Your task to perform on an android device: check android version Image 0: 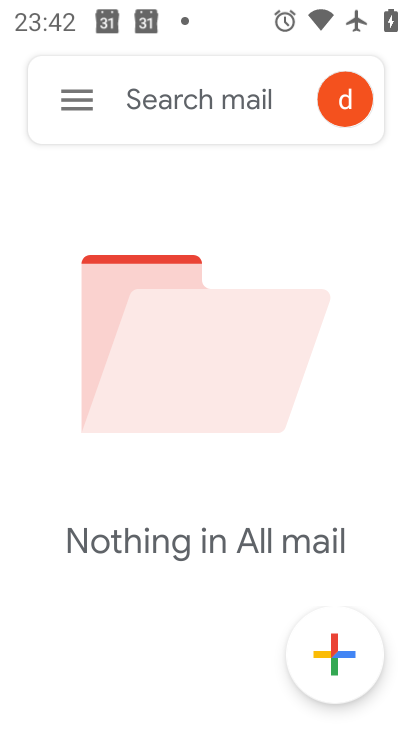
Step 0: press home button
Your task to perform on an android device: check android version Image 1: 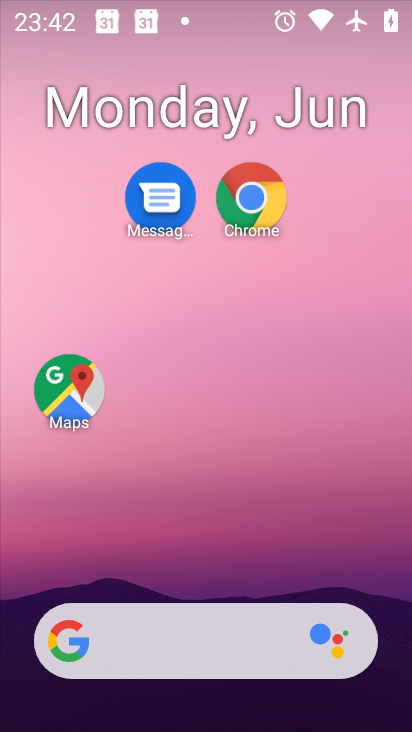
Step 1: drag from (209, 573) to (204, 156)
Your task to perform on an android device: check android version Image 2: 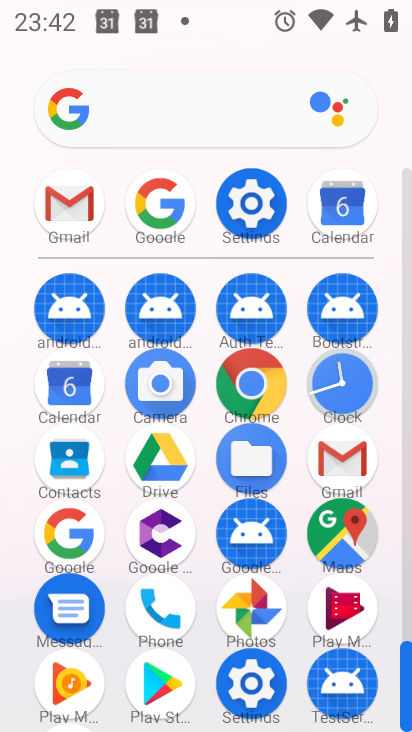
Step 2: click (257, 188)
Your task to perform on an android device: check android version Image 3: 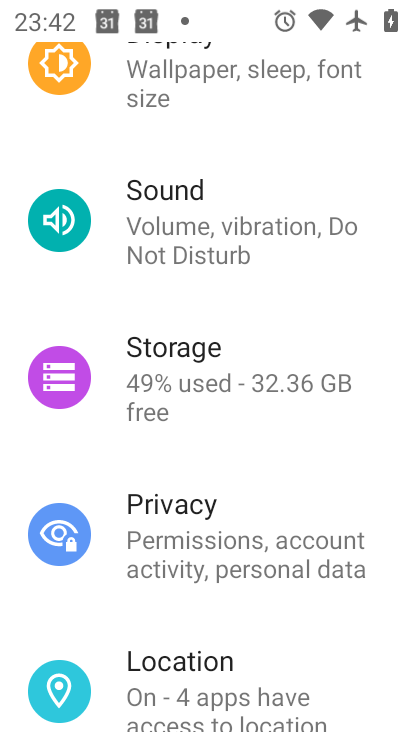
Step 3: drag from (261, 576) to (262, 310)
Your task to perform on an android device: check android version Image 4: 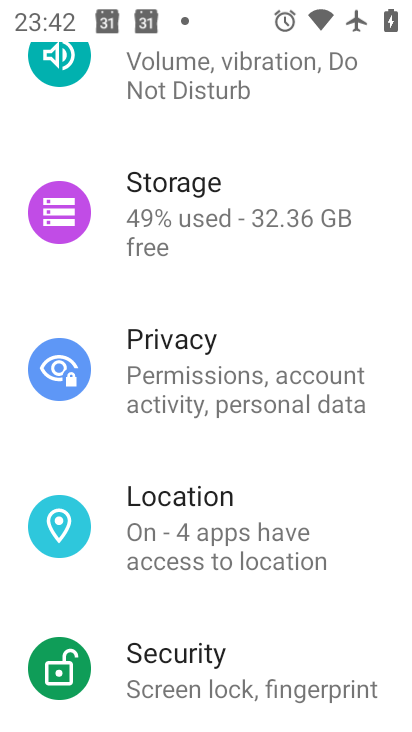
Step 4: drag from (262, 612) to (271, 232)
Your task to perform on an android device: check android version Image 5: 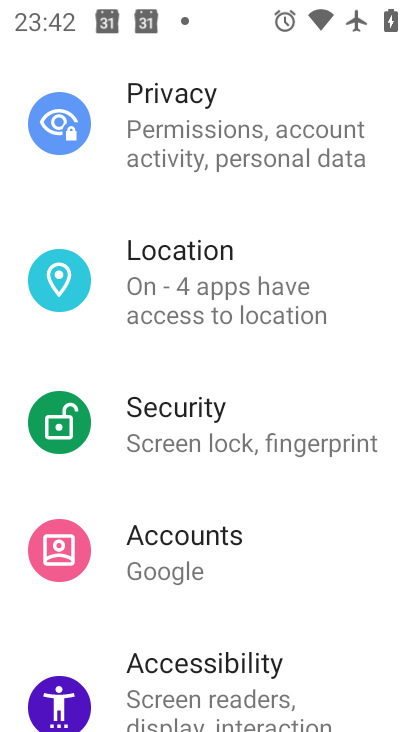
Step 5: drag from (278, 638) to (248, 157)
Your task to perform on an android device: check android version Image 6: 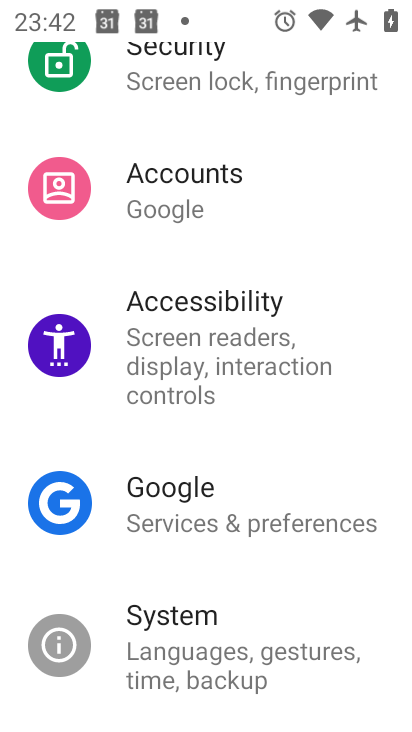
Step 6: click (265, 232)
Your task to perform on an android device: check android version Image 7: 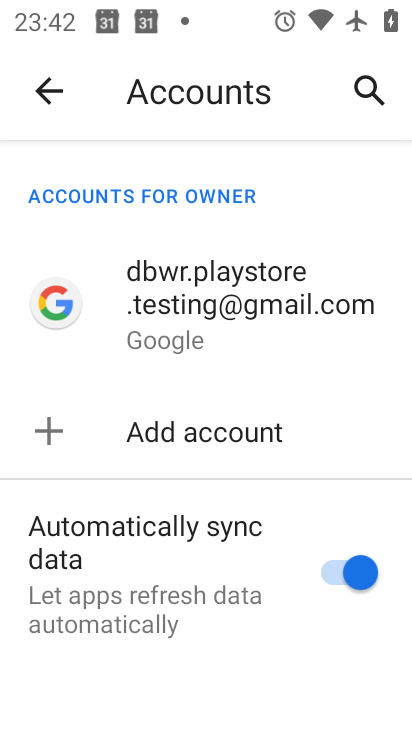
Step 7: drag from (223, 622) to (231, 304)
Your task to perform on an android device: check android version Image 8: 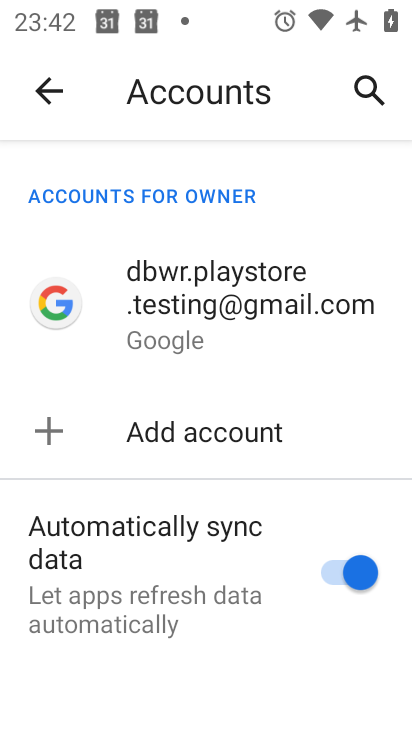
Step 8: click (40, 83)
Your task to perform on an android device: check android version Image 9: 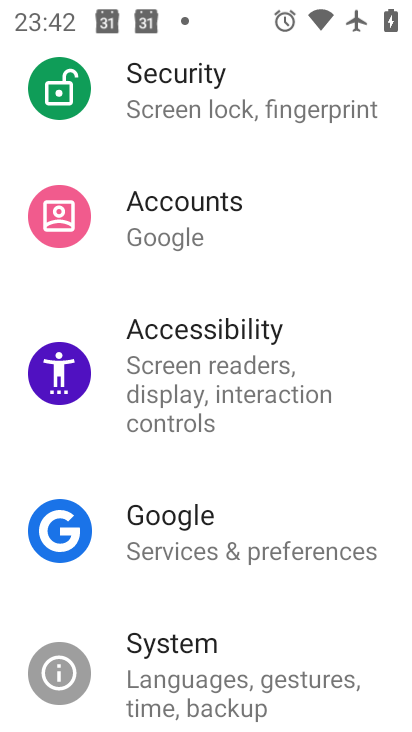
Step 9: drag from (185, 628) to (196, 283)
Your task to perform on an android device: check android version Image 10: 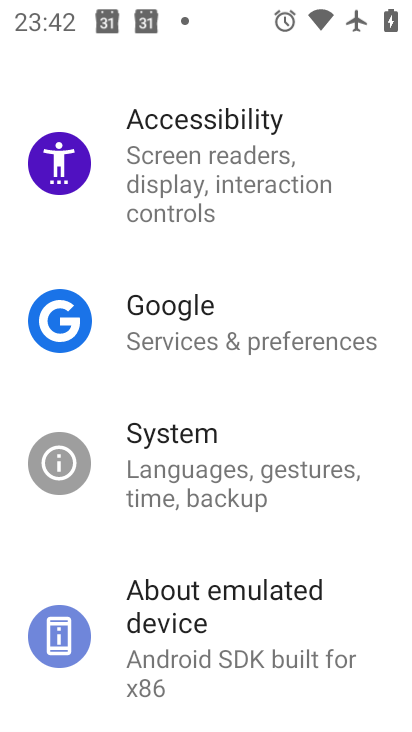
Step 10: drag from (211, 624) to (212, 374)
Your task to perform on an android device: check android version Image 11: 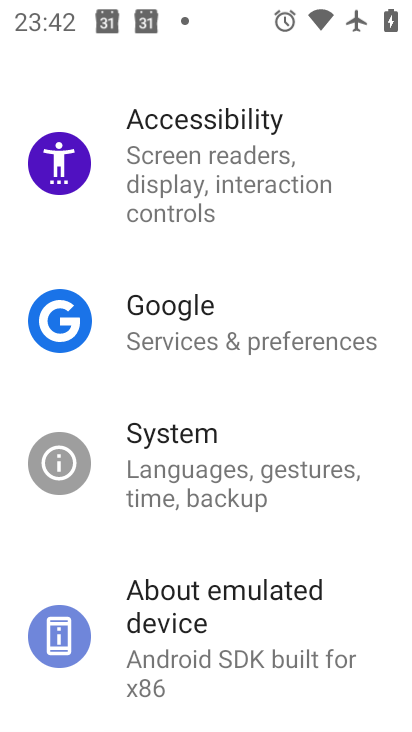
Step 11: click (222, 607)
Your task to perform on an android device: check android version Image 12: 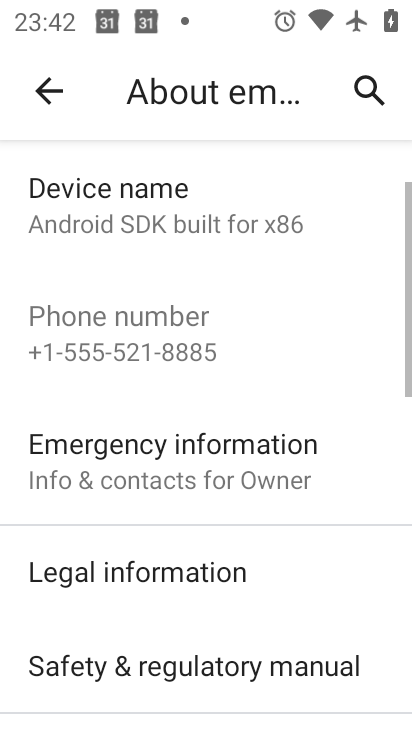
Step 12: drag from (173, 567) to (202, 314)
Your task to perform on an android device: check android version Image 13: 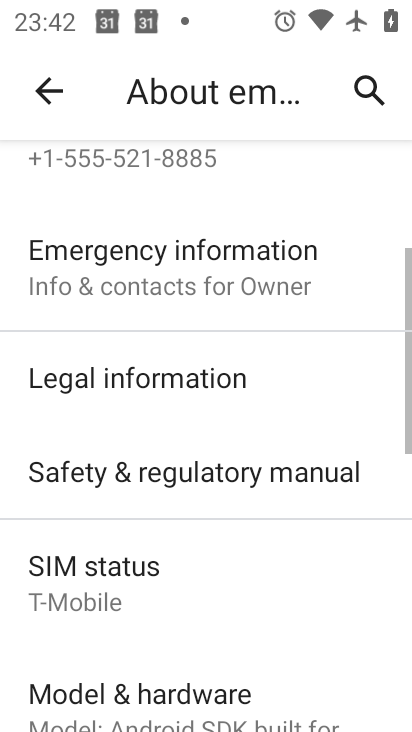
Step 13: drag from (183, 618) to (197, 302)
Your task to perform on an android device: check android version Image 14: 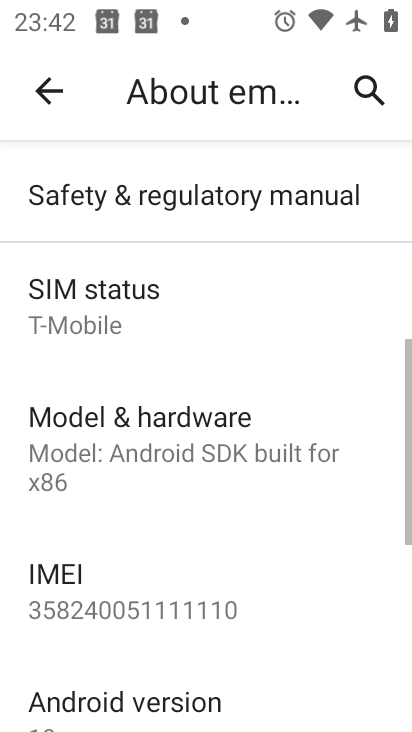
Step 14: drag from (152, 671) to (174, 383)
Your task to perform on an android device: check android version Image 15: 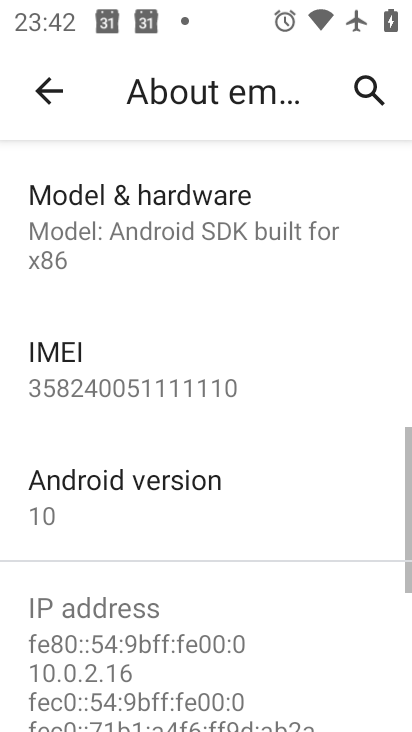
Step 15: click (166, 495)
Your task to perform on an android device: check android version Image 16: 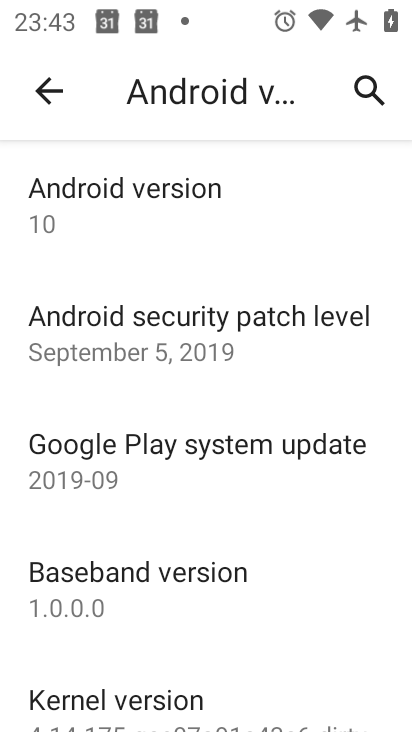
Step 16: click (205, 232)
Your task to perform on an android device: check android version Image 17: 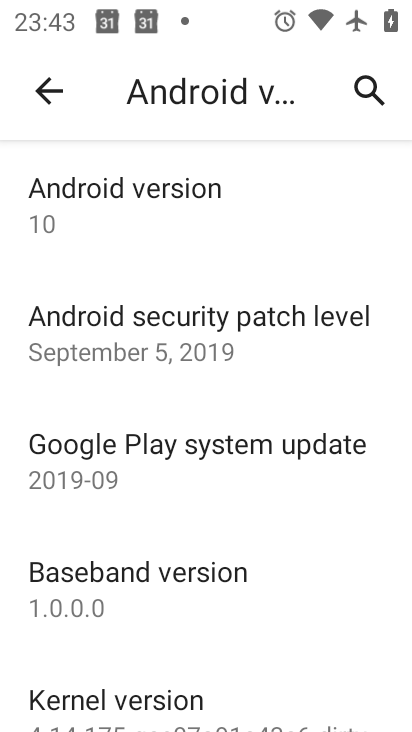
Step 17: click (248, 195)
Your task to perform on an android device: check android version Image 18: 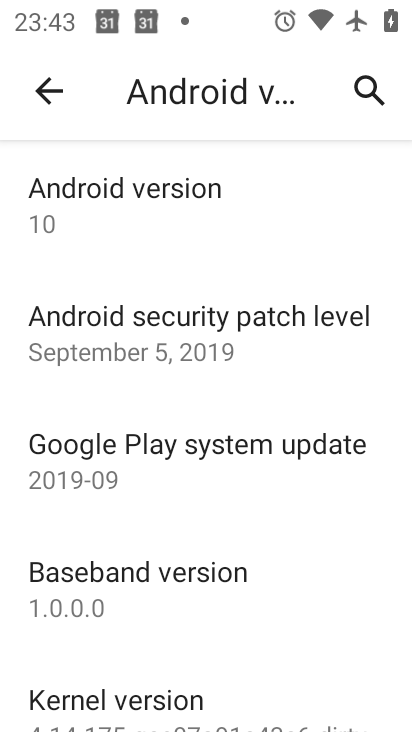
Step 18: task complete